Your task to perform on an android device: Open Maps and search for coffee Image 0: 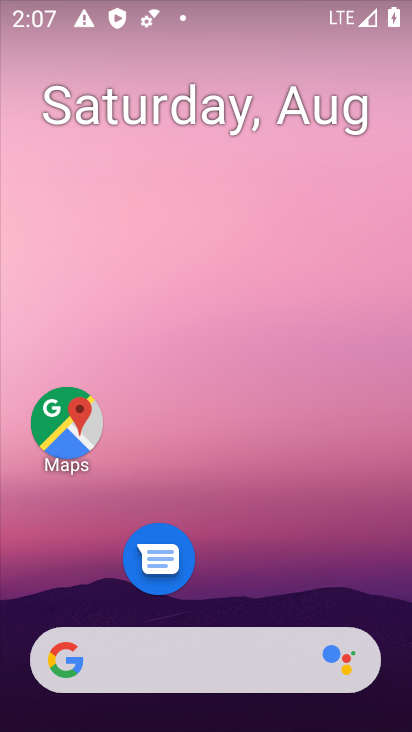
Step 0: drag from (205, 614) to (196, 17)
Your task to perform on an android device: Open Maps and search for coffee Image 1: 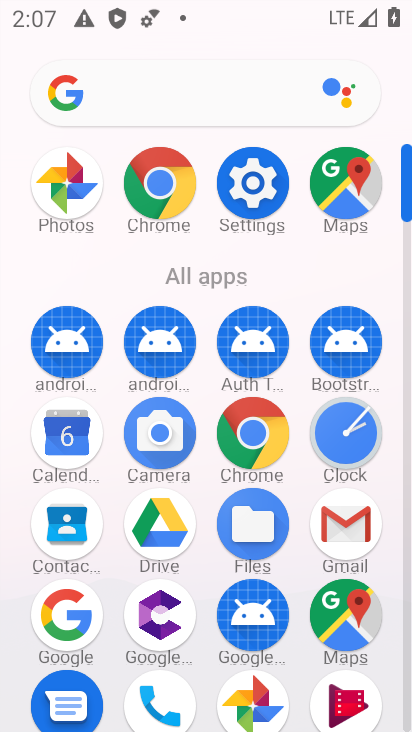
Step 1: click (336, 614)
Your task to perform on an android device: Open Maps and search for coffee Image 2: 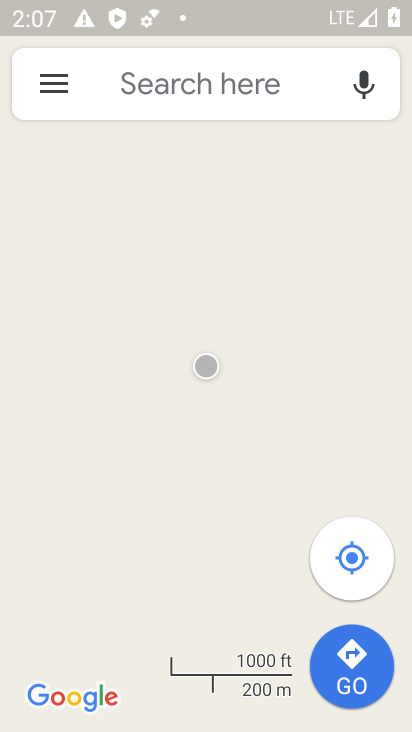
Step 2: click (199, 113)
Your task to perform on an android device: Open Maps and search for coffee Image 3: 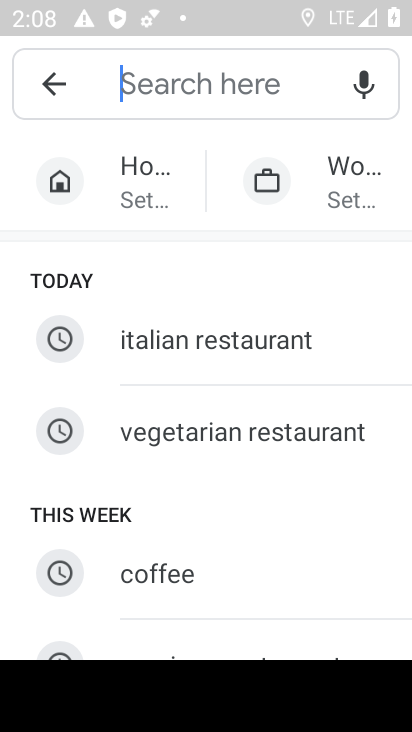
Step 3: click (166, 569)
Your task to perform on an android device: Open Maps and search for coffee Image 4: 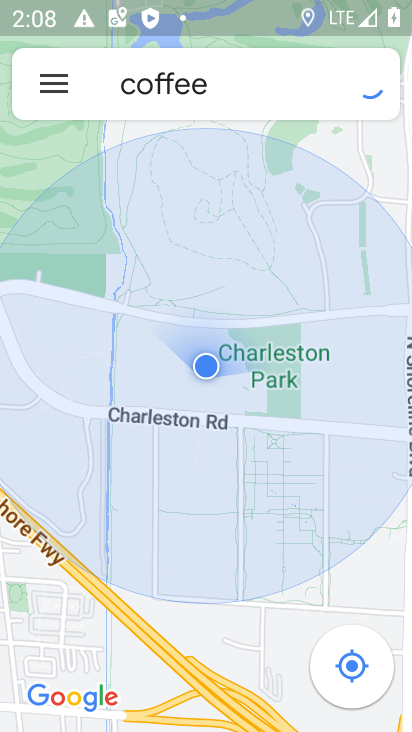
Step 4: task complete